Your task to perform on an android device: check out phone information Image 0: 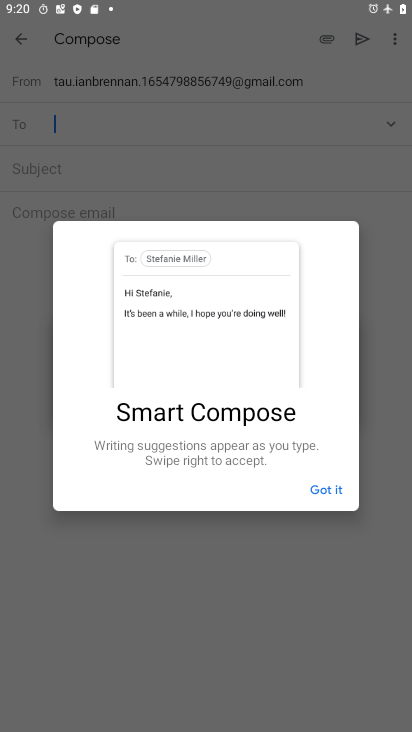
Step 0: press home button
Your task to perform on an android device: check out phone information Image 1: 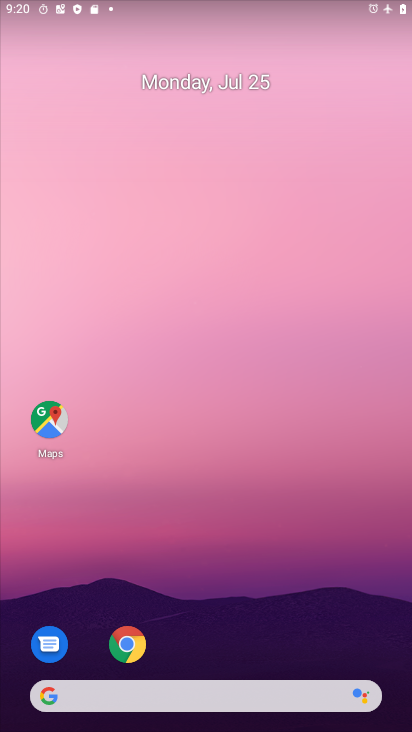
Step 1: drag from (266, 592) to (273, 0)
Your task to perform on an android device: check out phone information Image 2: 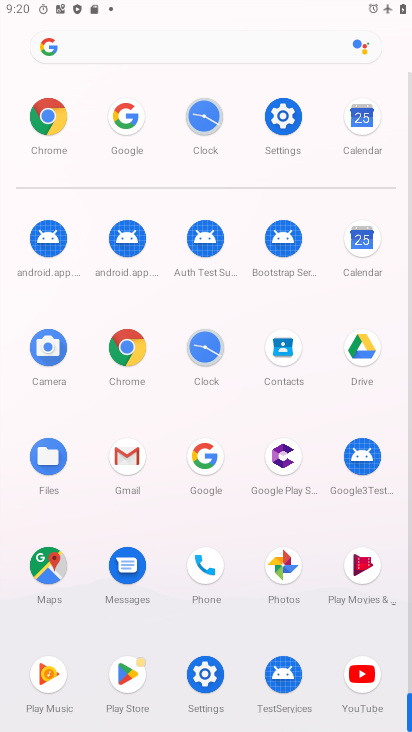
Step 2: click (205, 683)
Your task to perform on an android device: check out phone information Image 3: 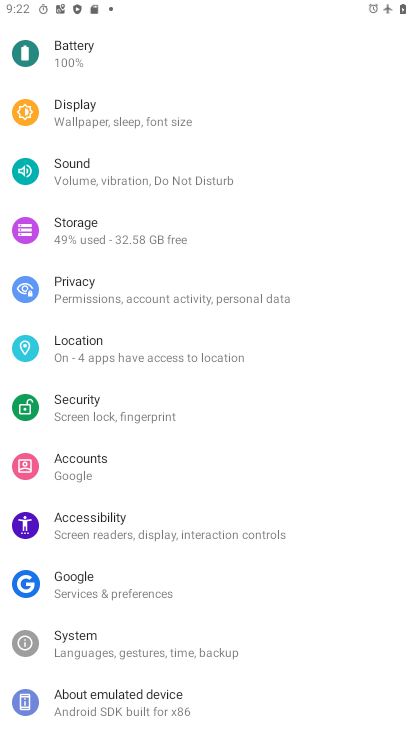
Step 3: drag from (230, 647) to (236, 265)
Your task to perform on an android device: check out phone information Image 4: 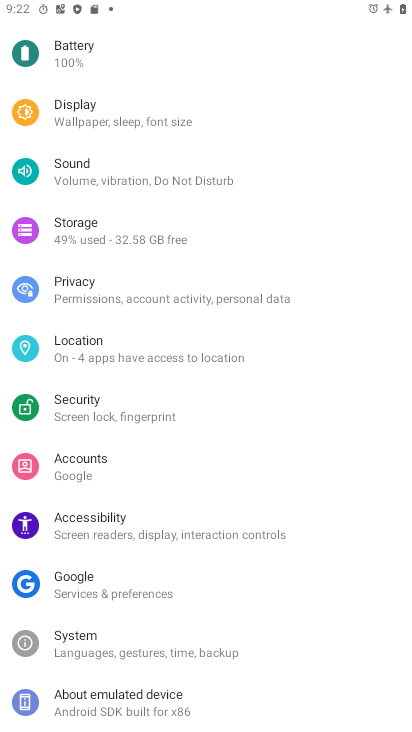
Step 4: click (135, 704)
Your task to perform on an android device: check out phone information Image 5: 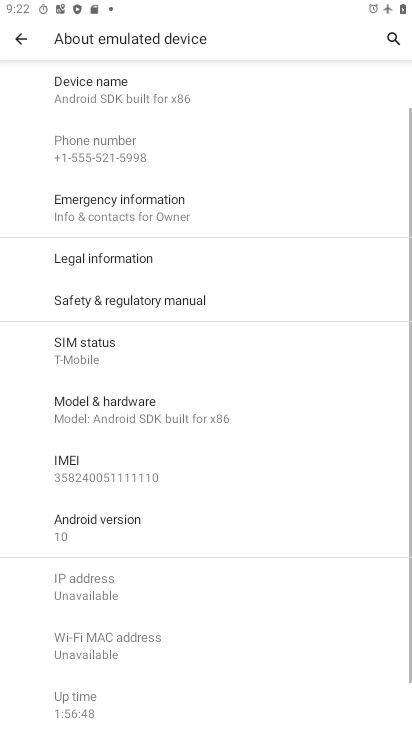
Step 5: task complete